Your task to perform on an android device: Go to internet settings Image 0: 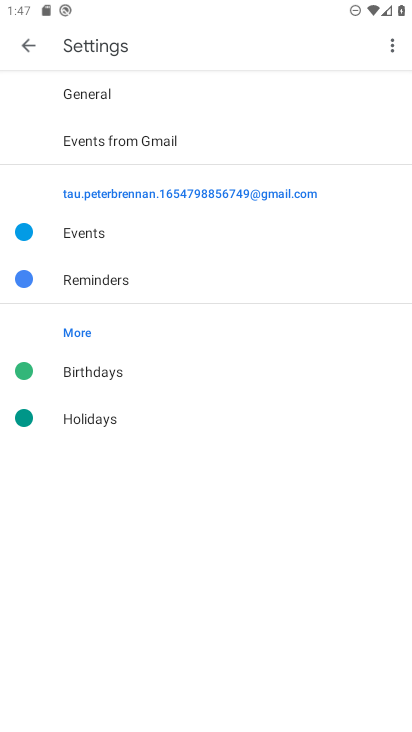
Step 0: press home button
Your task to perform on an android device: Go to internet settings Image 1: 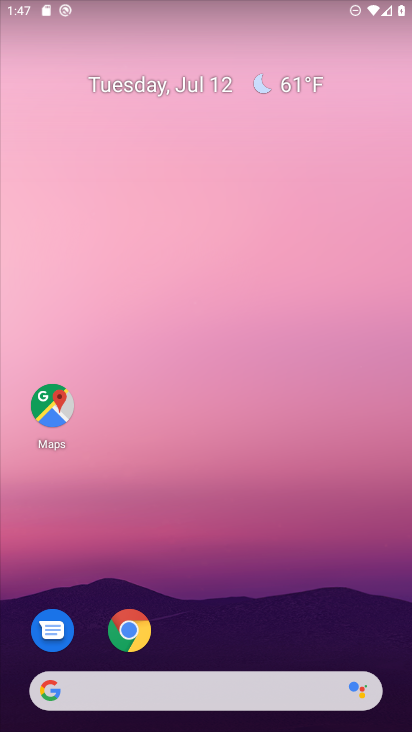
Step 1: drag from (209, 335) to (209, 166)
Your task to perform on an android device: Go to internet settings Image 2: 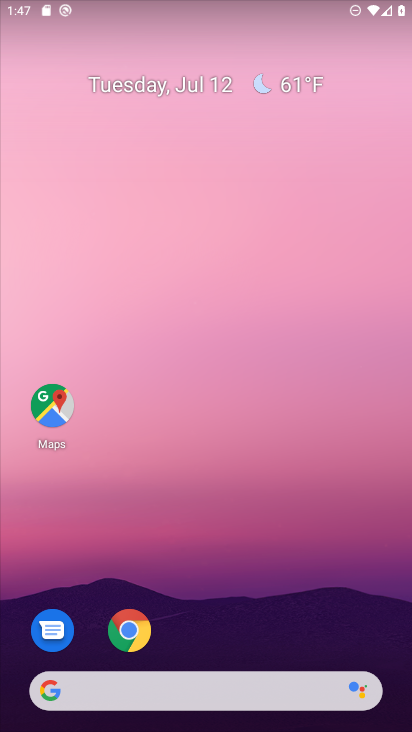
Step 2: drag from (203, 648) to (210, 121)
Your task to perform on an android device: Go to internet settings Image 3: 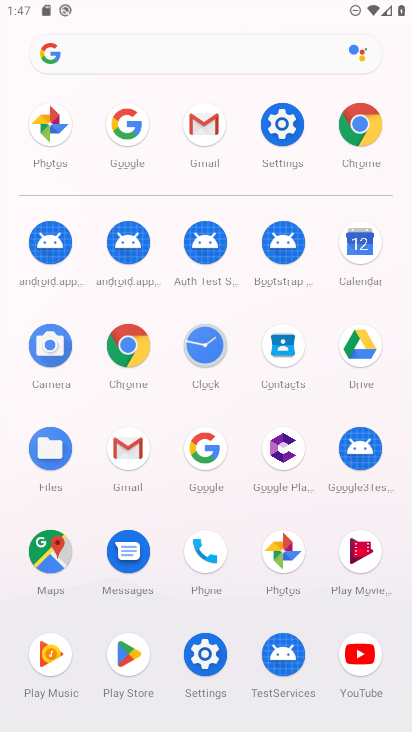
Step 3: click (256, 136)
Your task to perform on an android device: Go to internet settings Image 4: 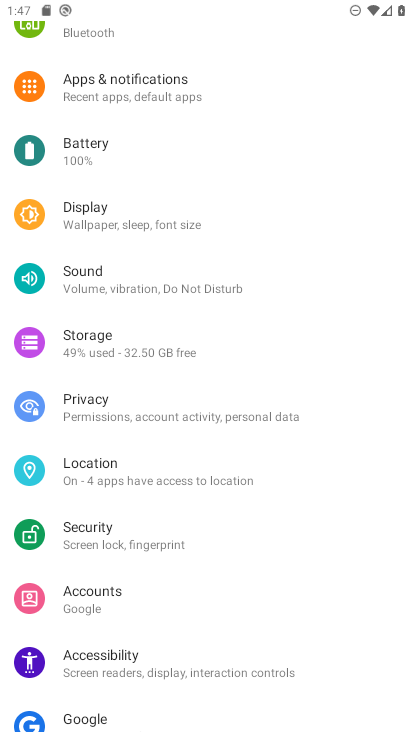
Step 4: drag from (142, 137) to (146, 379)
Your task to perform on an android device: Go to internet settings Image 5: 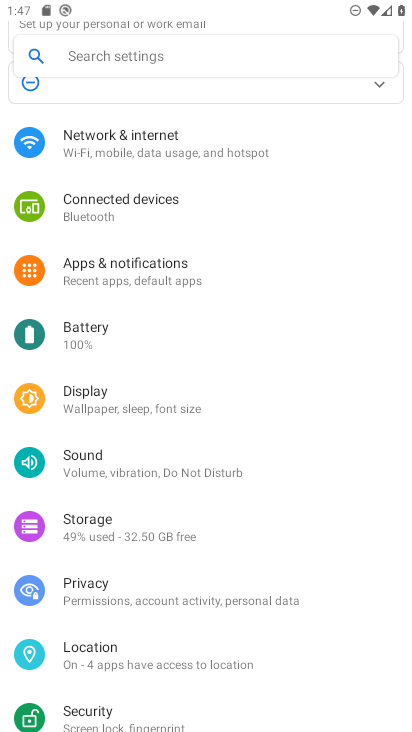
Step 5: drag from (267, 232) to (266, 558)
Your task to perform on an android device: Go to internet settings Image 6: 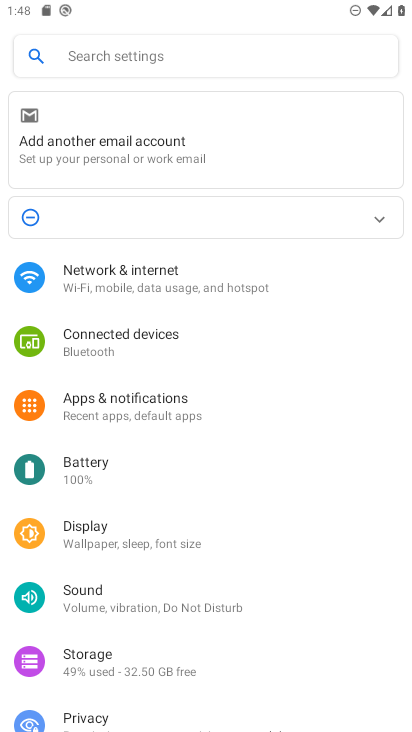
Step 6: click (165, 246)
Your task to perform on an android device: Go to internet settings Image 7: 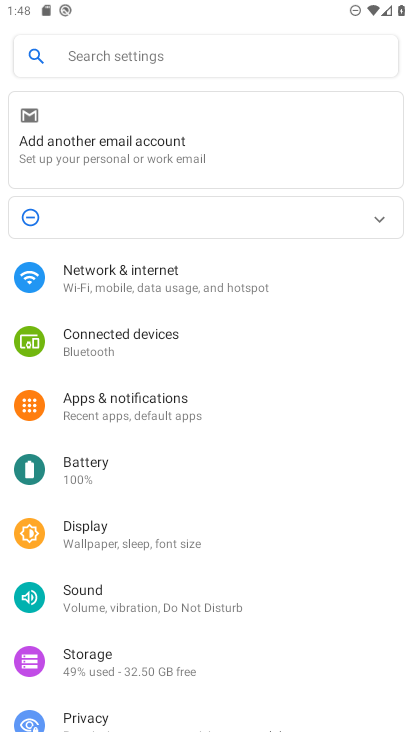
Step 7: click (168, 299)
Your task to perform on an android device: Go to internet settings Image 8: 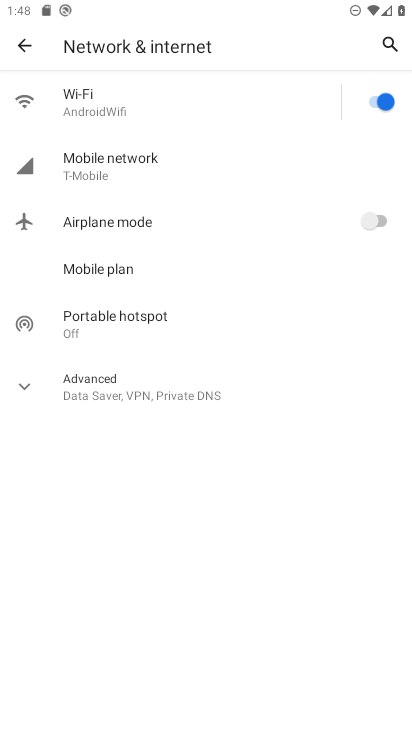
Step 8: task complete